Your task to perform on an android device: Go to Reddit.com Image 0: 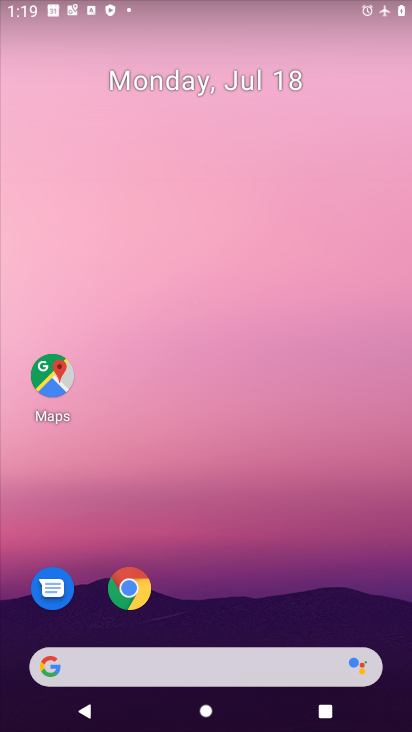
Step 0: drag from (264, 585) to (264, 154)
Your task to perform on an android device: Go to Reddit.com Image 1: 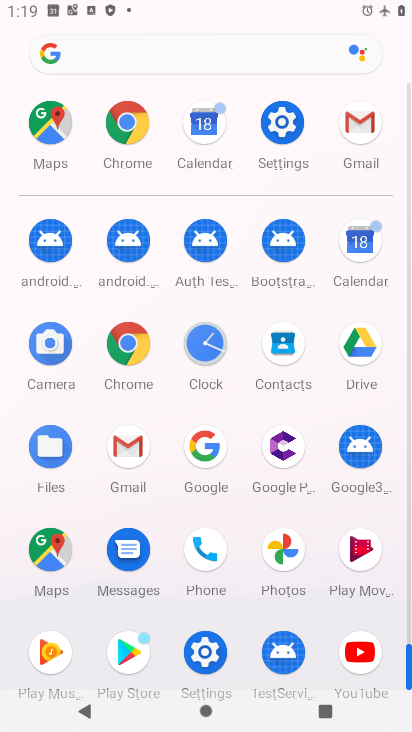
Step 1: click (132, 129)
Your task to perform on an android device: Go to Reddit.com Image 2: 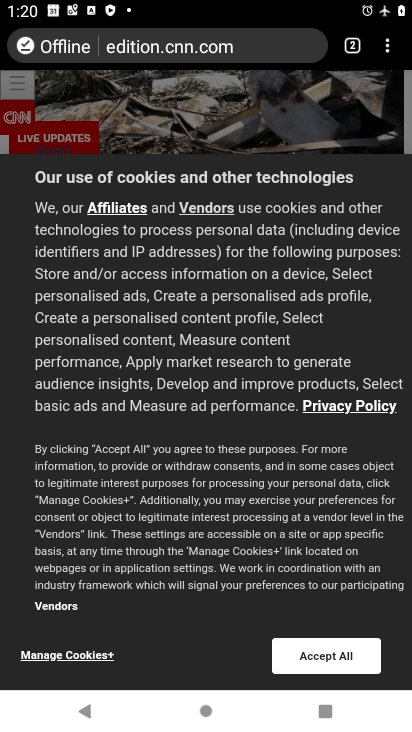
Step 2: click (161, 55)
Your task to perform on an android device: Go to Reddit.com Image 3: 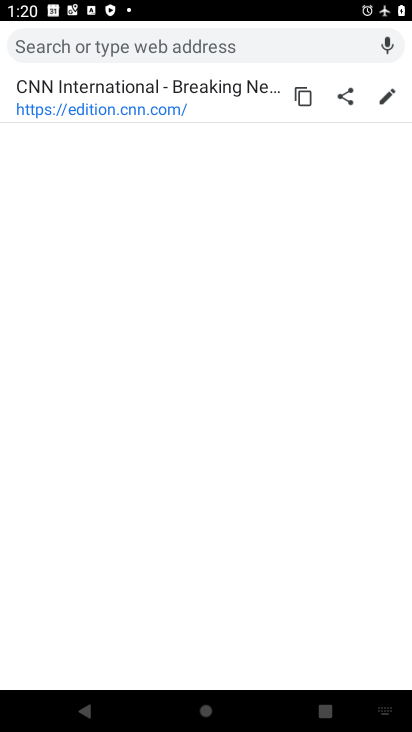
Step 3: type "reddit"
Your task to perform on an android device: Go to Reddit.com Image 4: 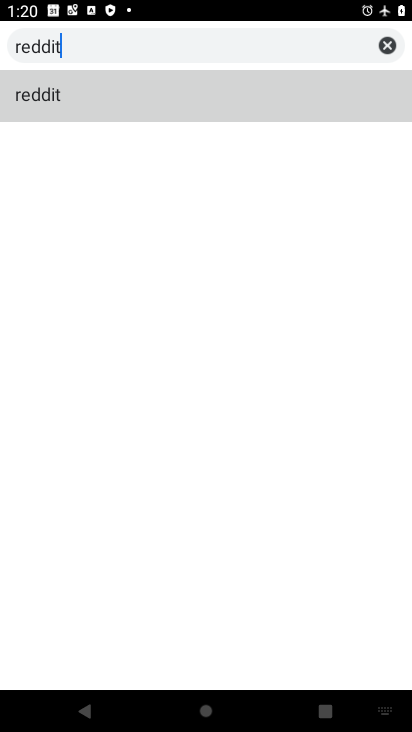
Step 4: click (127, 107)
Your task to perform on an android device: Go to Reddit.com Image 5: 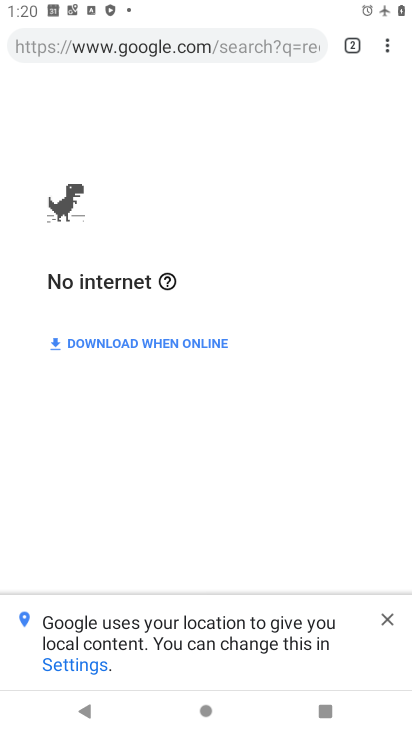
Step 5: task complete